Your task to perform on an android device: check google app version Image 0: 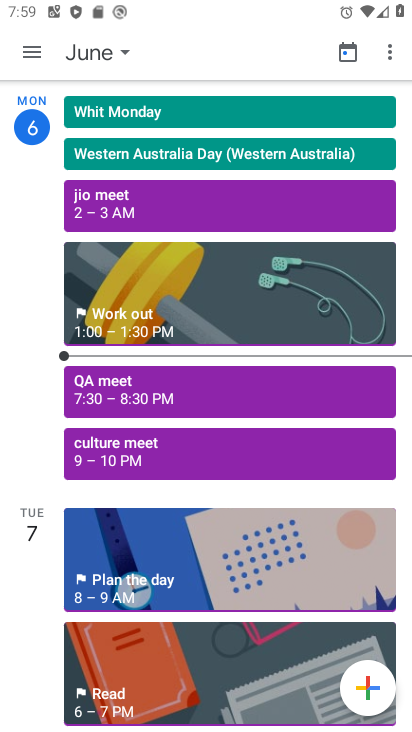
Step 0: press home button
Your task to perform on an android device: check google app version Image 1: 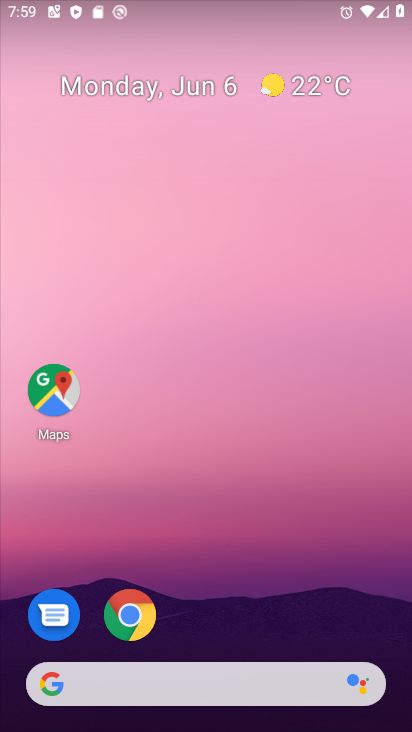
Step 1: drag from (397, 707) to (399, 80)
Your task to perform on an android device: check google app version Image 2: 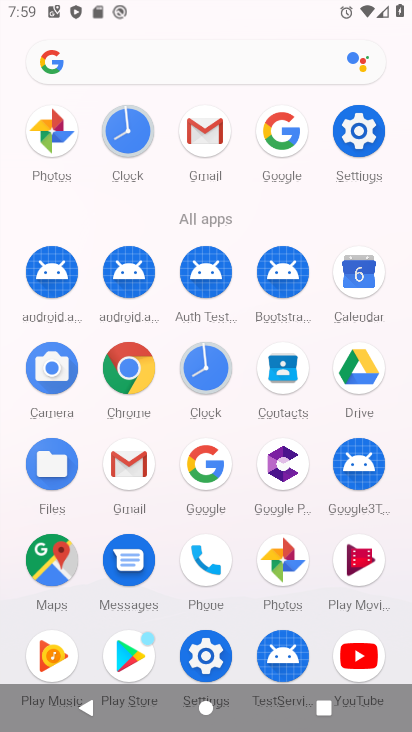
Step 2: click (190, 466)
Your task to perform on an android device: check google app version Image 3: 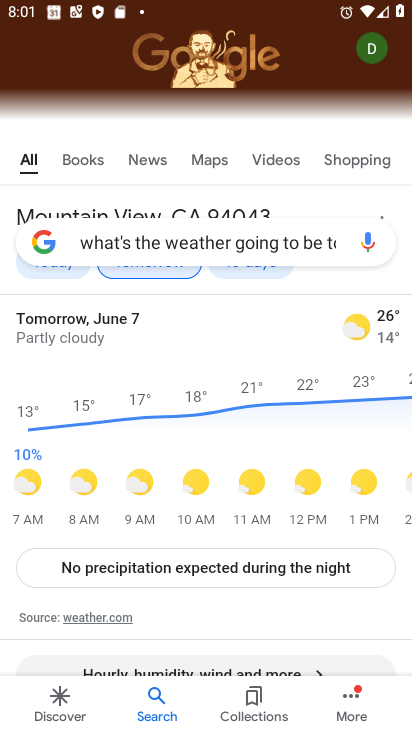
Step 3: click (349, 698)
Your task to perform on an android device: check google app version Image 4: 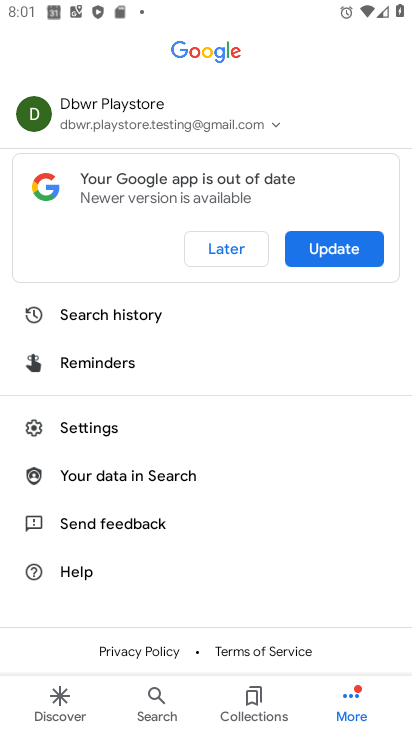
Step 4: click (69, 411)
Your task to perform on an android device: check google app version Image 5: 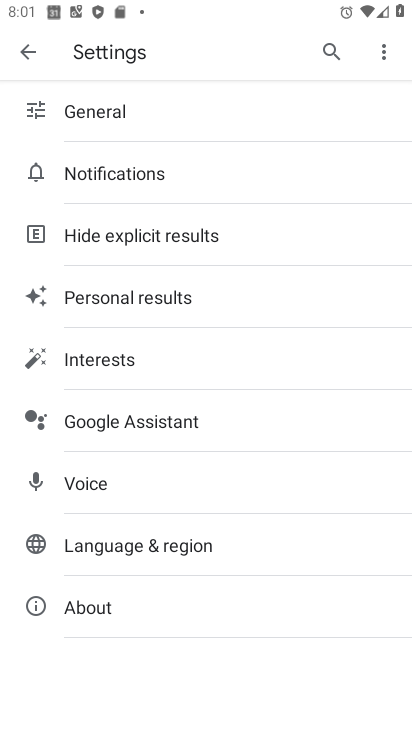
Step 5: click (76, 615)
Your task to perform on an android device: check google app version Image 6: 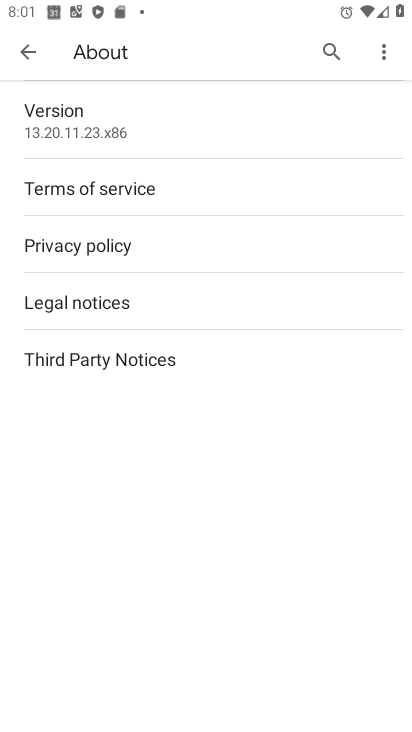
Step 6: click (110, 125)
Your task to perform on an android device: check google app version Image 7: 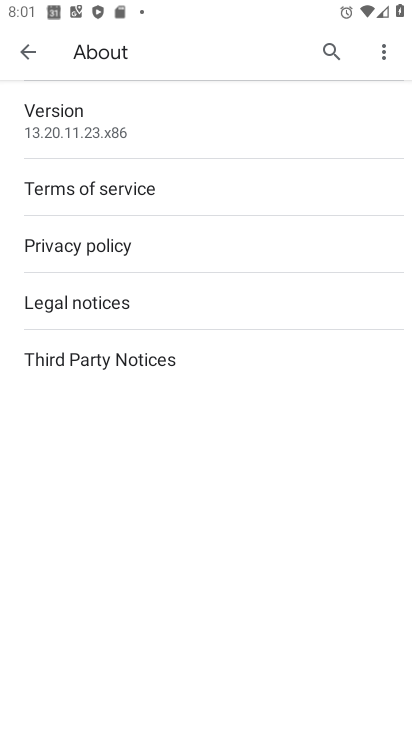
Step 7: task complete